Your task to perform on an android device: Open Google Maps and go to "Timeline" Image 0: 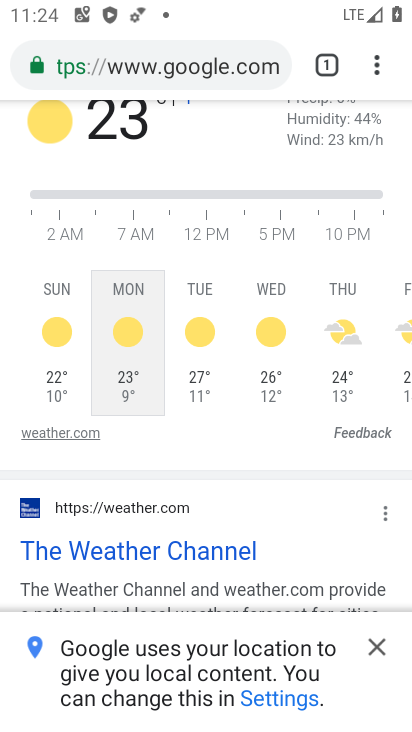
Step 0: press home button
Your task to perform on an android device: Open Google Maps and go to "Timeline" Image 1: 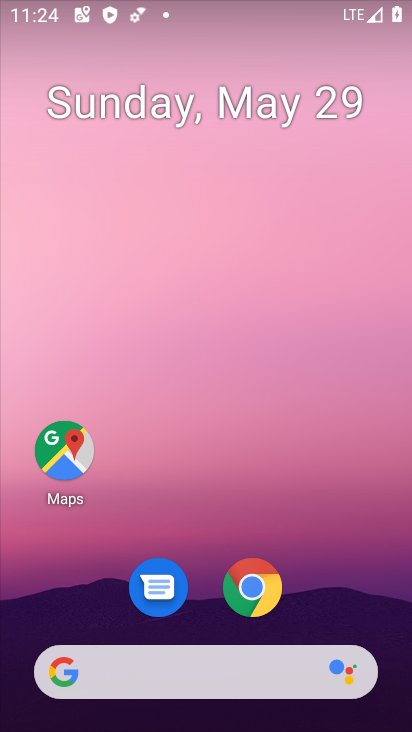
Step 1: click (67, 444)
Your task to perform on an android device: Open Google Maps and go to "Timeline" Image 2: 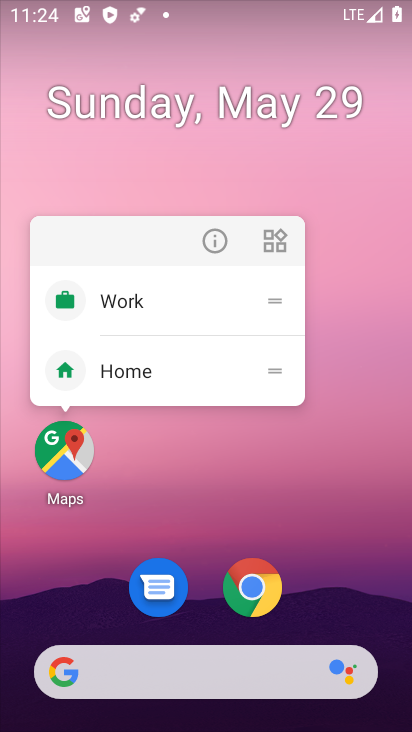
Step 2: click (62, 461)
Your task to perform on an android device: Open Google Maps and go to "Timeline" Image 3: 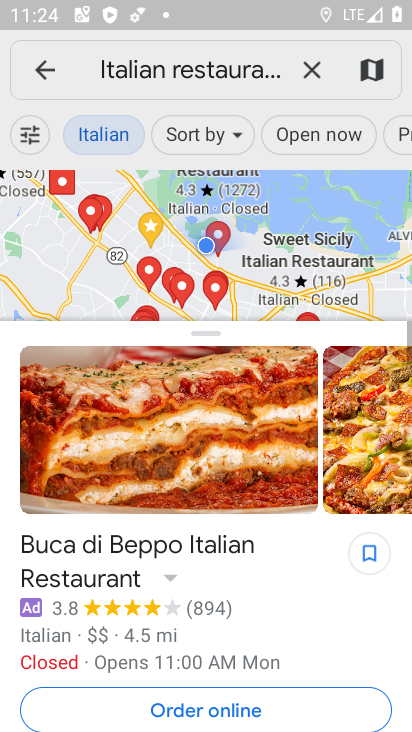
Step 3: click (47, 71)
Your task to perform on an android device: Open Google Maps and go to "Timeline" Image 4: 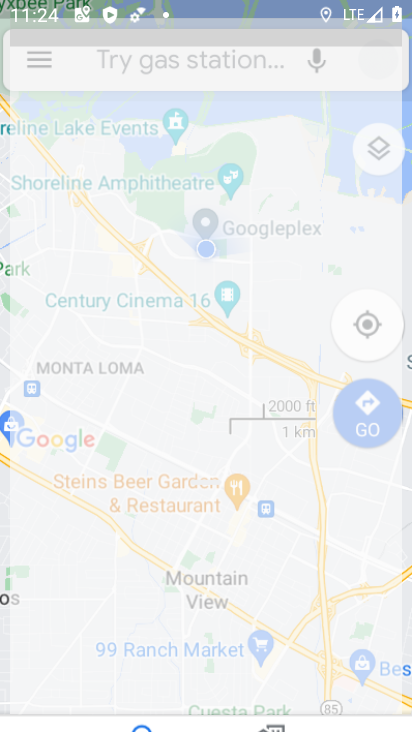
Step 4: click (40, 60)
Your task to perform on an android device: Open Google Maps and go to "Timeline" Image 5: 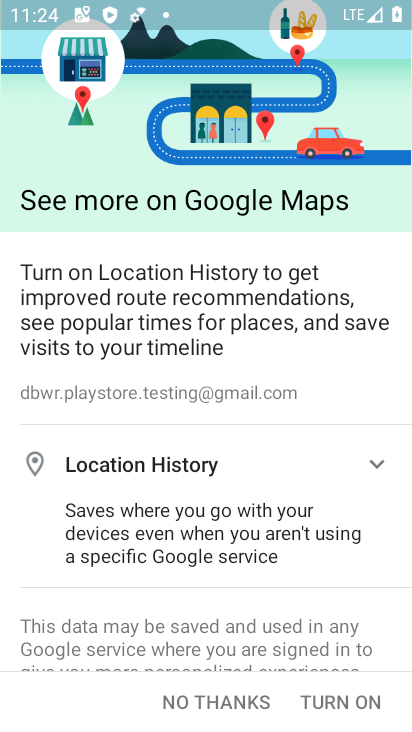
Step 5: click (243, 710)
Your task to perform on an android device: Open Google Maps and go to "Timeline" Image 6: 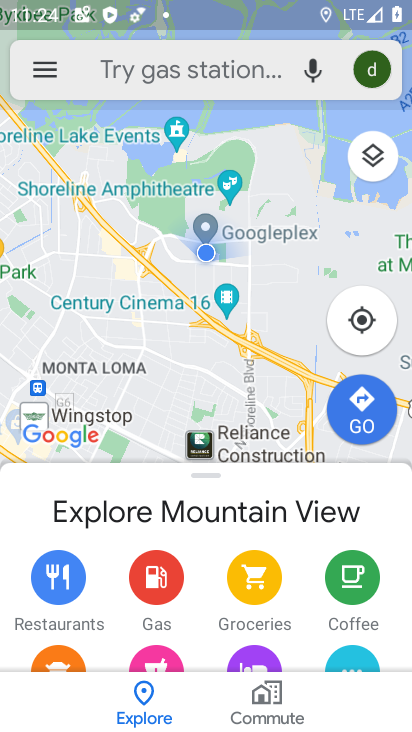
Step 6: click (38, 64)
Your task to perform on an android device: Open Google Maps and go to "Timeline" Image 7: 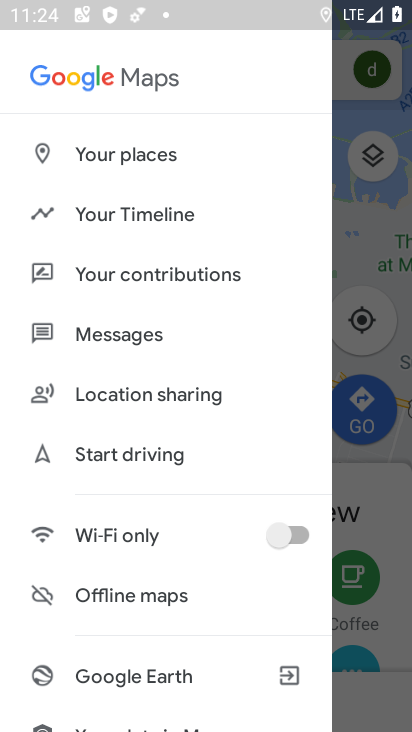
Step 7: click (146, 219)
Your task to perform on an android device: Open Google Maps and go to "Timeline" Image 8: 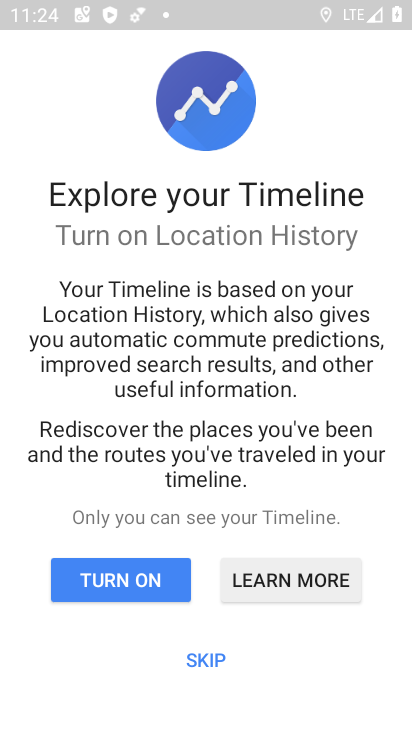
Step 8: click (158, 584)
Your task to perform on an android device: Open Google Maps and go to "Timeline" Image 9: 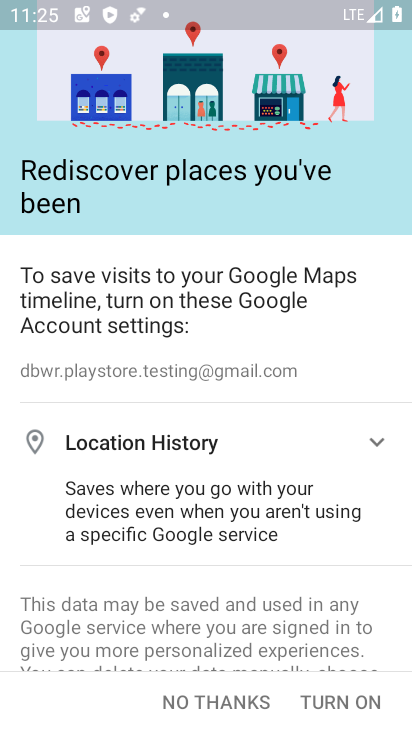
Step 9: click (243, 695)
Your task to perform on an android device: Open Google Maps and go to "Timeline" Image 10: 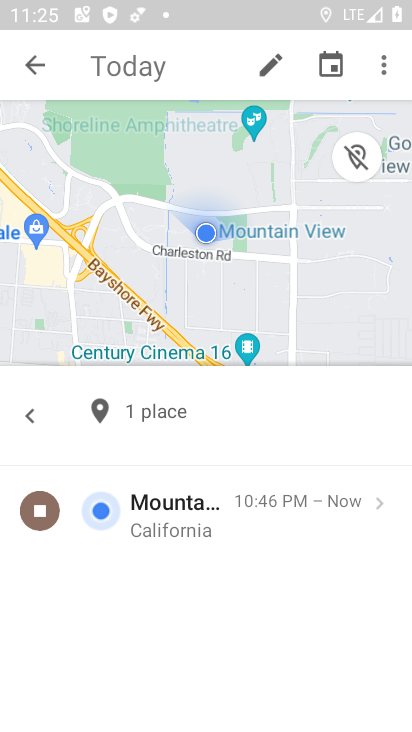
Step 10: task complete